Your task to perform on an android device: open chrome privacy settings Image 0: 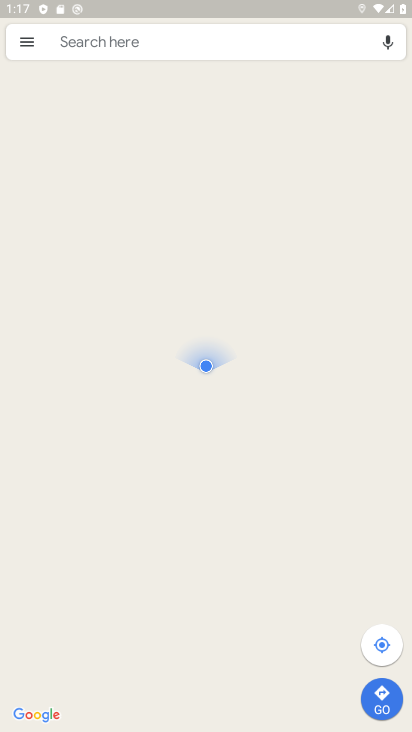
Step 0: press back button
Your task to perform on an android device: open chrome privacy settings Image 1: 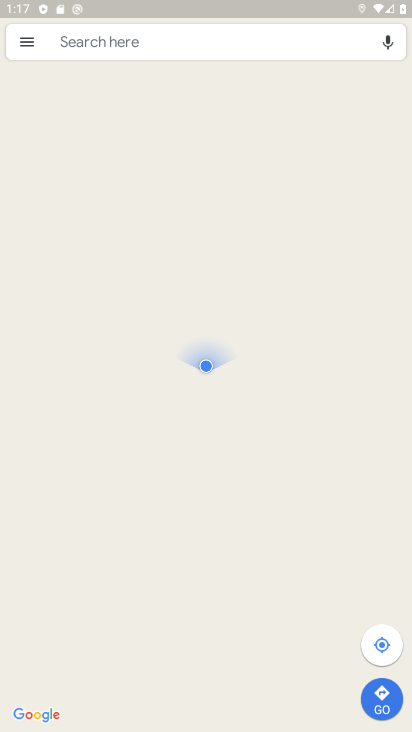
Step 1: press back button
Your task to perform on an android device: open chrome privacy settings Image 2: 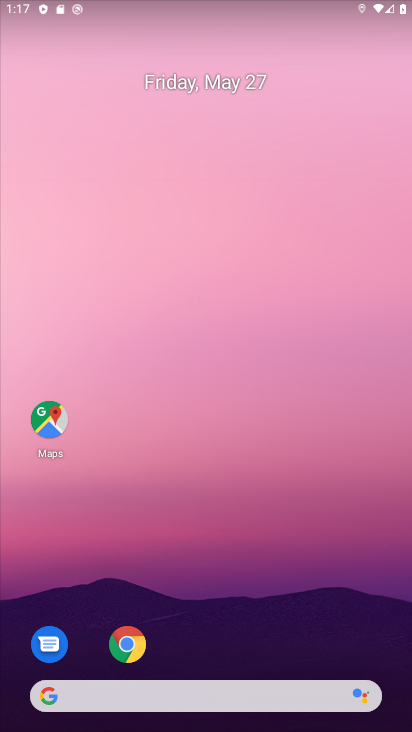
Step 2: press back button
Your task to perform on an android device: open chrome privacy settings Image 3: 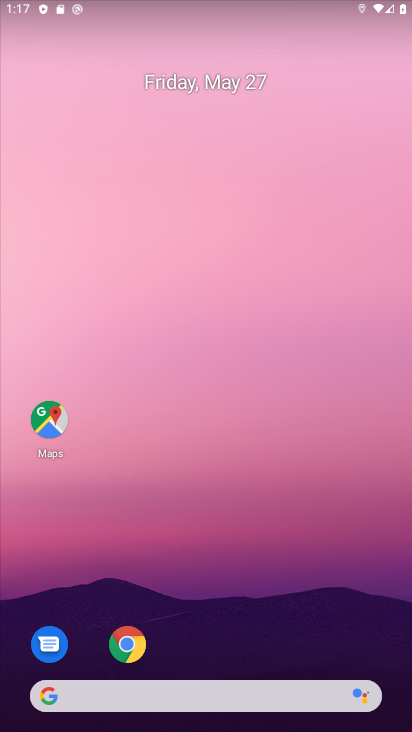
Step 3: press home button
Your task to perform on an android device: open chrome privacy settings Image 4: 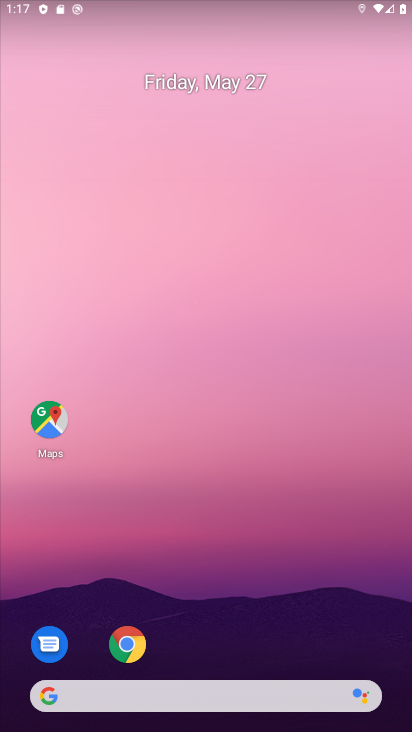
Step 4: drag from (228, 485) to (234, 25)
Your task to perform on an android device: open chrome privacy settings Image 5: 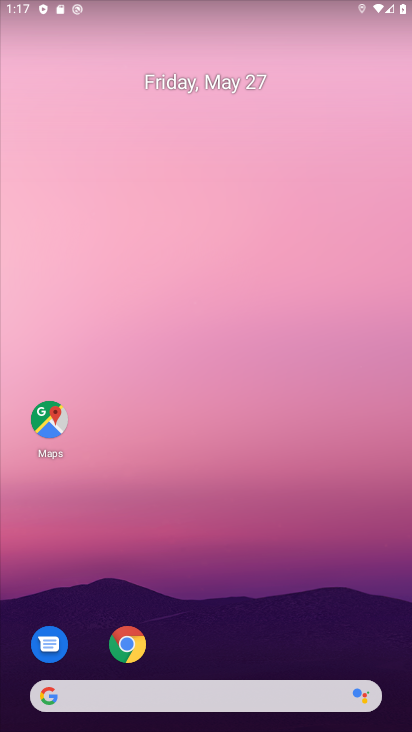
Step 5: drag from (251, 564) to (319, 35)
Your task to perform on an android device: open chrome privacy settings Image 6: 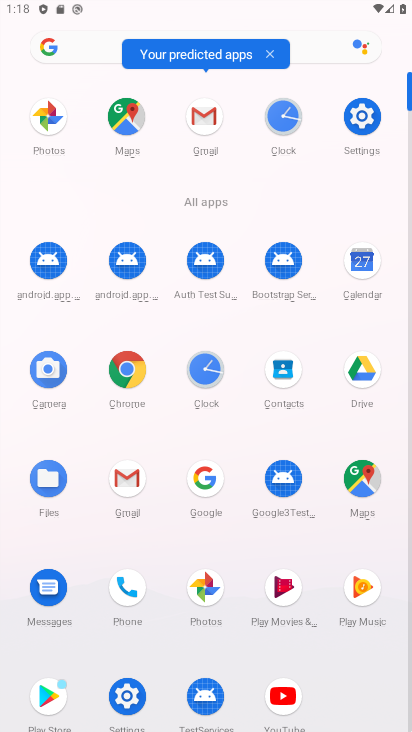
Step 6: drag from (11, 553) to (9, 228)
Your task to perform on an android device: open chrome privacy settings Image 7: 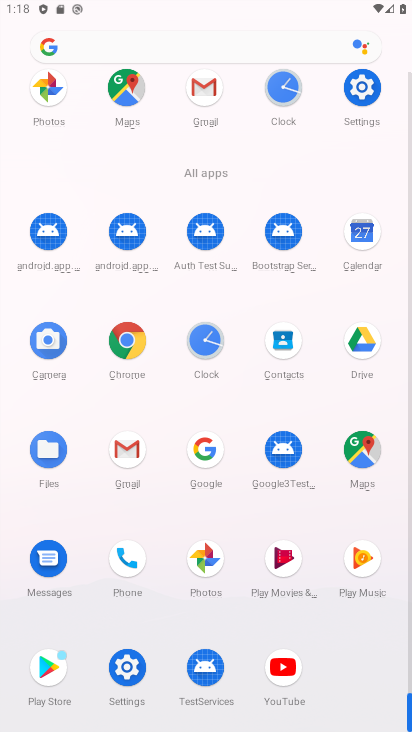
Step 7: click (126, 339)
Your task to perform on an android device: open chrome privacy settings Image 8: 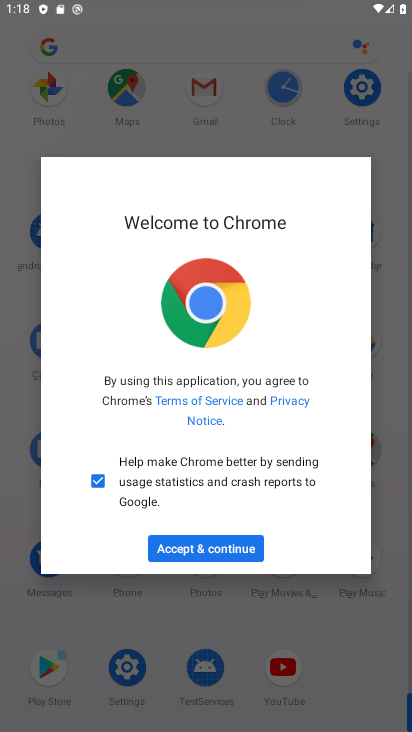
Step 8: click (234, 546)
Your task to perform on an android device: open chrome privacy settings Image 9: 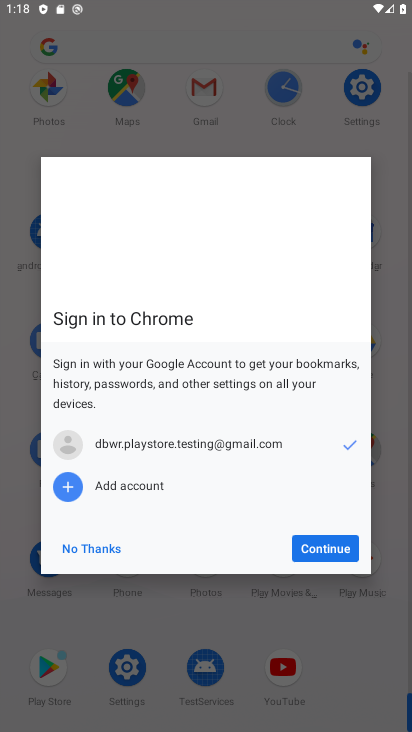
Step 9: click (328, 549)
Your task to perform on an android device: open chrome privacy settings Image 10: 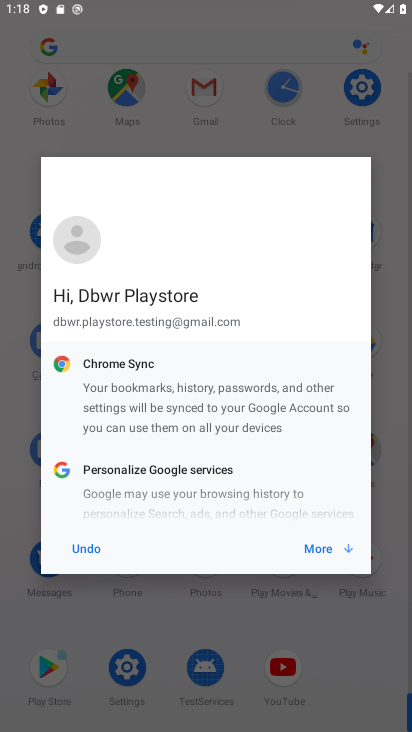
Step 10: click (328, 549)
Your task to perform on an android device: open chrome privacy settings Image 11: 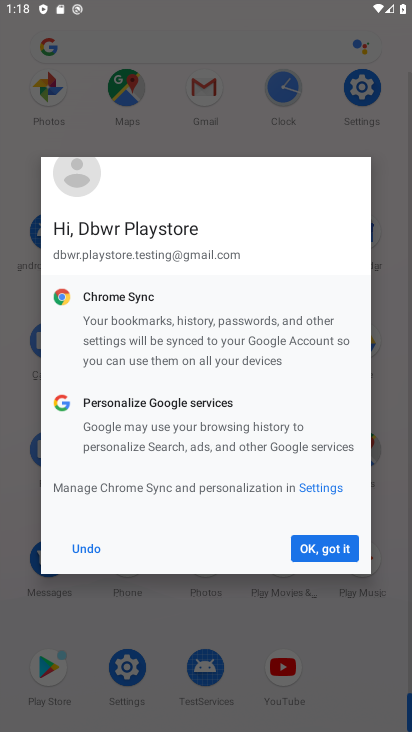
Step 11: click (327, 546)
Your task to perform on an android device: open chrome privacy settings Image 12: 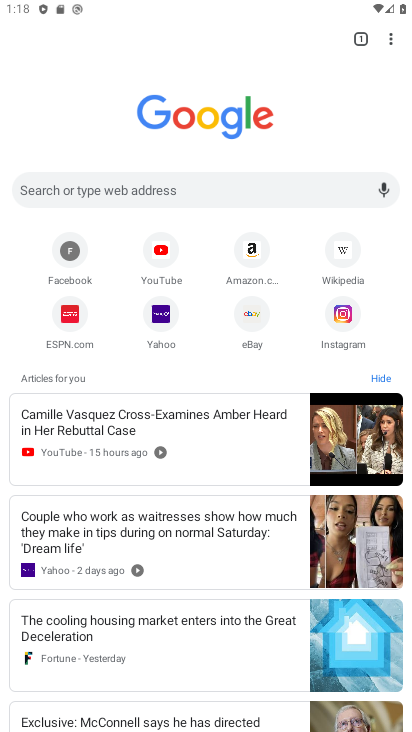
Step 12: drag from (390, 40) to (253, 321)
Your task to perform on an android device: open chrome privacy settings Image 13: 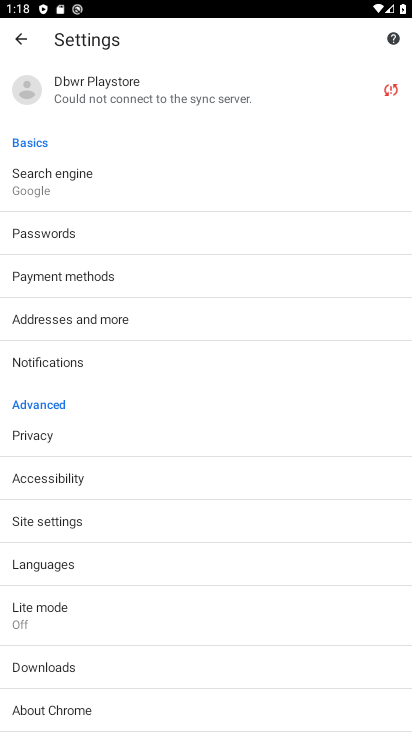
Step 13: click (61, 428)
Your task to perform on an android device: open chrome privacy settings Image 14: 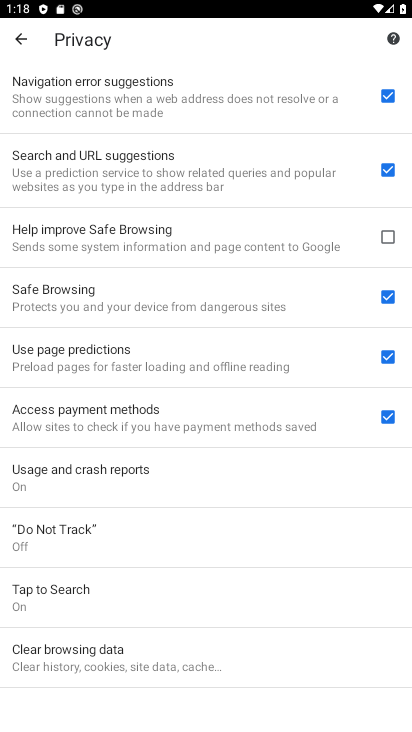
Step 14: task complete